Your task to perform on an android device: Go to sound settings Image 0: 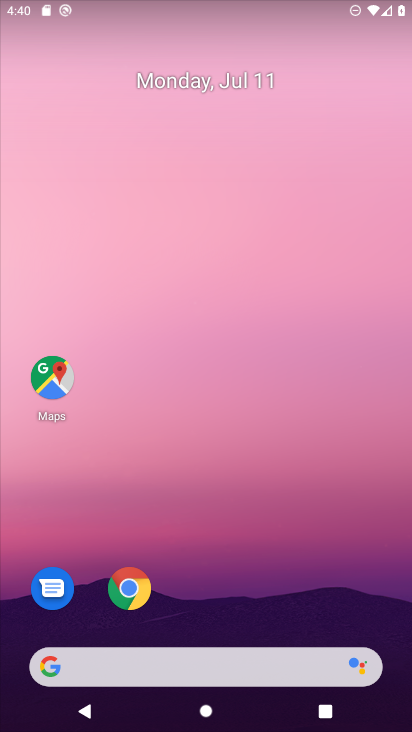
Step 0: press home button
Your task to perform on an android device: Go to sound settings Image 1: 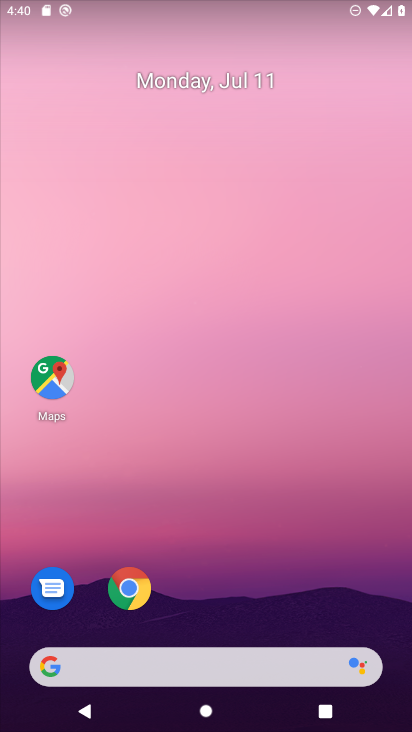
Step 1: drag from (249, 616) to (308, 7)
Your task to perform on an android device: Go to sound settings Image 2: 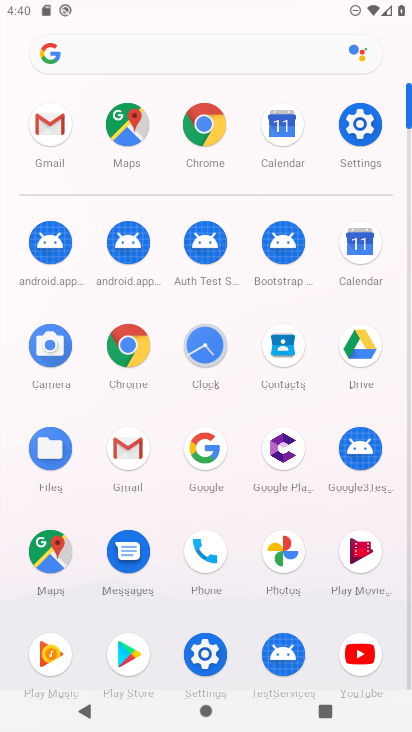
Step 2: click (359, 131)
Your task to perform on an android device: Go to sound settings Image 3: 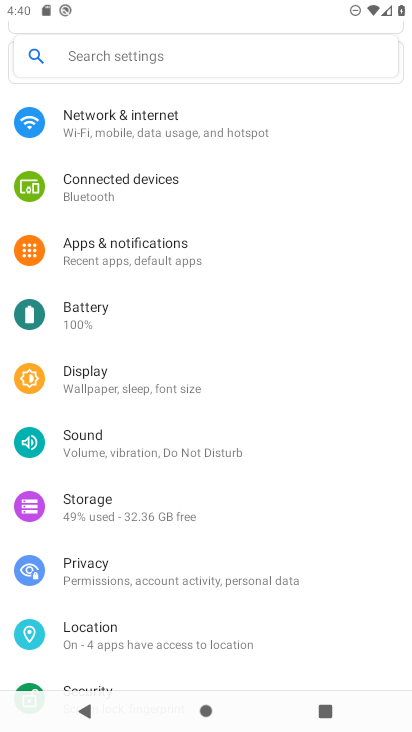
Step 3: click (83, 443)
Your task to perform on an android device: Go to sound settings Image 4: 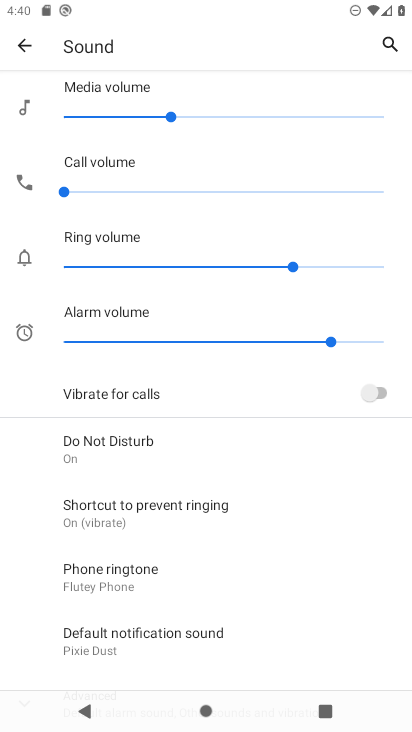
Step 4: task complete